Your task to perform on an android device: refresh tabs in the chrome app Image 0: 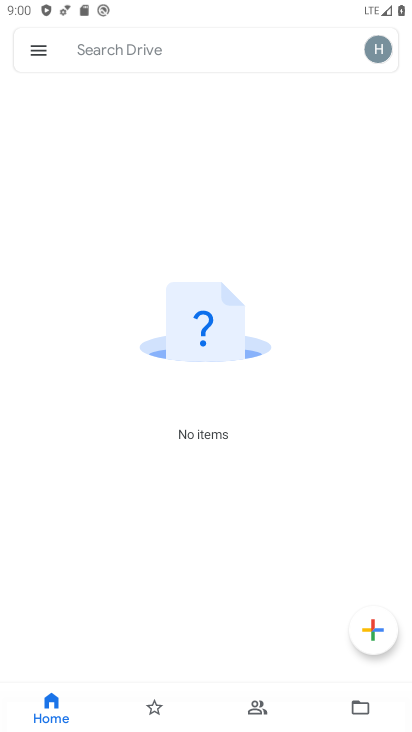
Step 0: press home button
Your task to perform on an android device: refresh tabs in the chrome app Image 1: 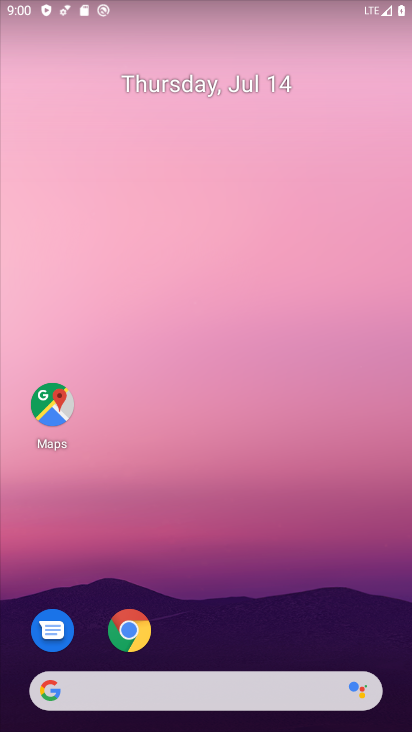
Step 1: click (130, 624)
Your task to perform on an android device: refresh tabs in the chrome app Image 2: 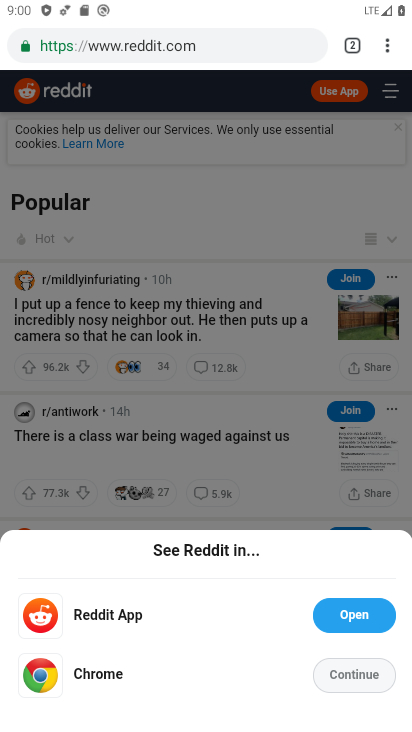
Step 2: press home button
Your task to perform on an android device: refresh tabs in the chrome app Image 3: 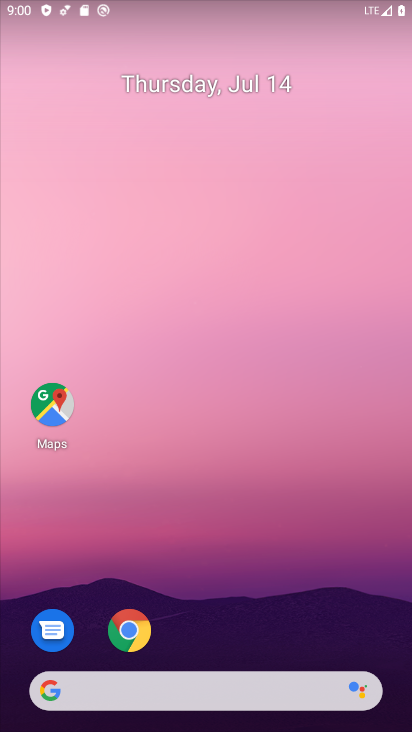
Step 3: drag from (124, 299) to (75, 99)
Your task to perform on an android device: refresh tabs in the chrome app Image 4: 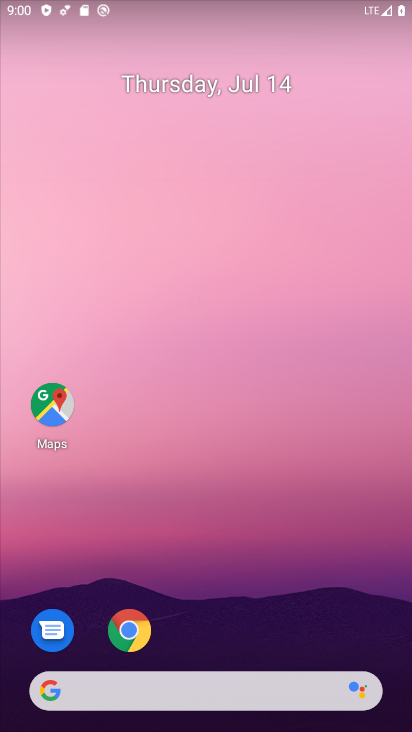
Step 4: click (140, 636)
Your task to perform on an android device: refresh tabs in the chrome app Image 5: 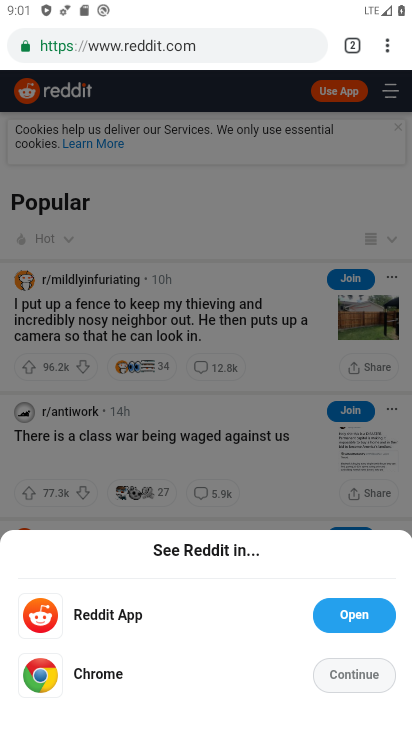
Step 5: click (359, 667)
Your task to perform on an android device: refresh tabs in the chrome app Image 6: 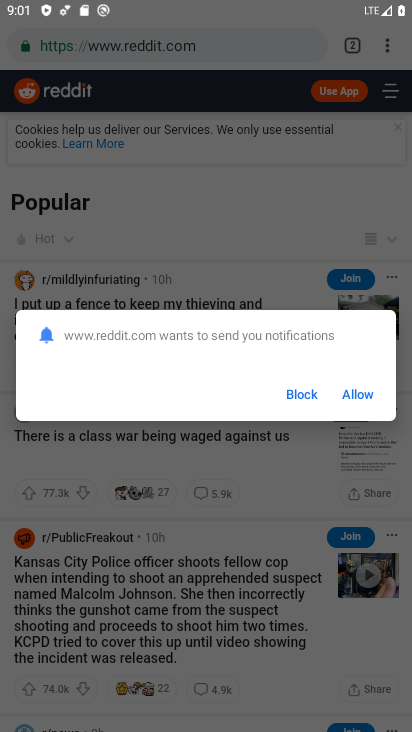
Step 6: click (348, 402)
Your task to perform on an android device: refresh tabs in the chrome app Image 7: 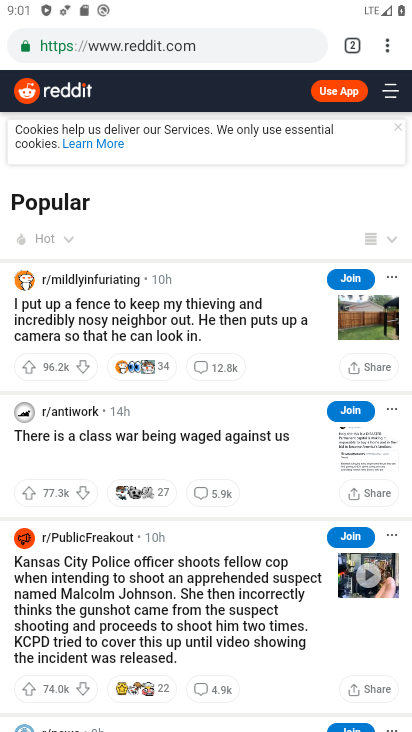
Step 7: click (392, 39)
Your task to perform on an android device: refresh tabs in the chrome app Image 8: 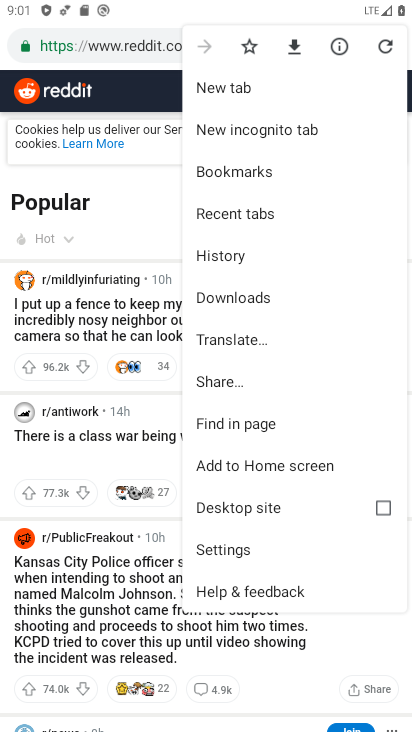
Step 8: click (385, 43)
Your task to perform on an android device: refresh tabs in the chrome app Image 9: 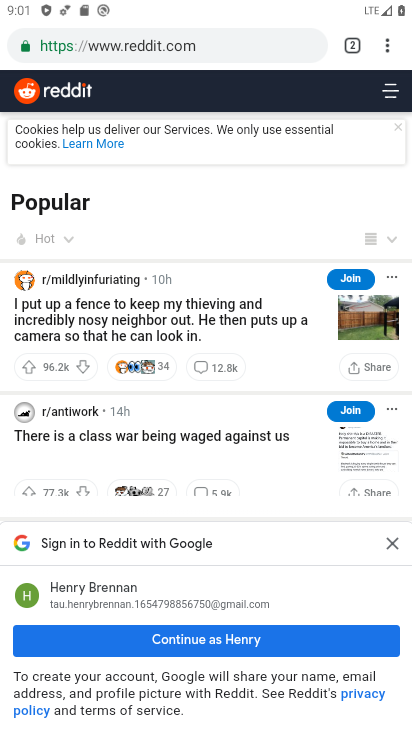
Step 9: task complete